Your task to perform on an android device: delete the emails in spam in the gmail app Image 0: 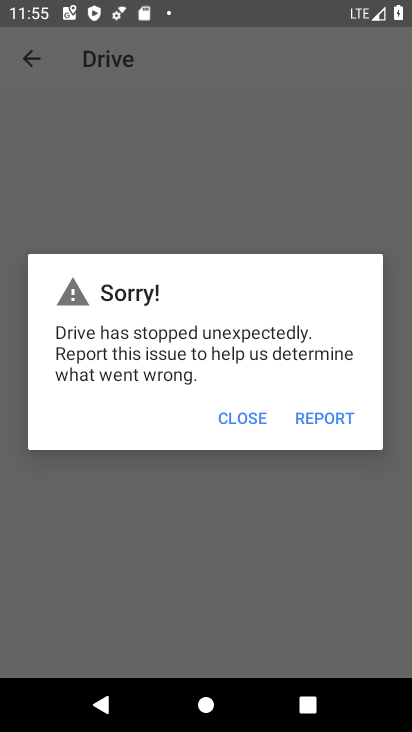
Step 0: press home button
Your task to perform on an android device: delete the emails in spam in the gmail app Image 1: 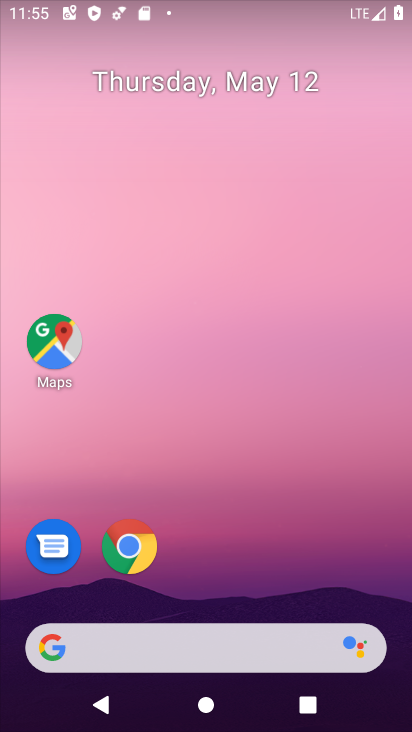
Step 1: drag from (257, 569) to (263, 109)
Your task to perform on an android device: delete the emails in spam in the gmail app Image 2: 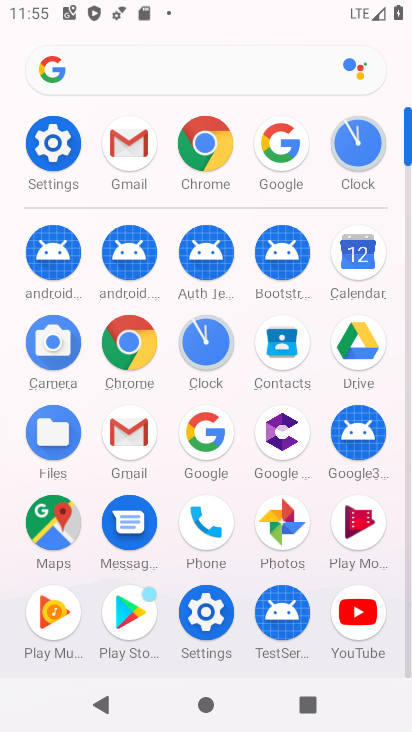
Step 2: click (129, 134)
Your task to perform on an android device: delete the emails in spam in the gmail app Image 3: 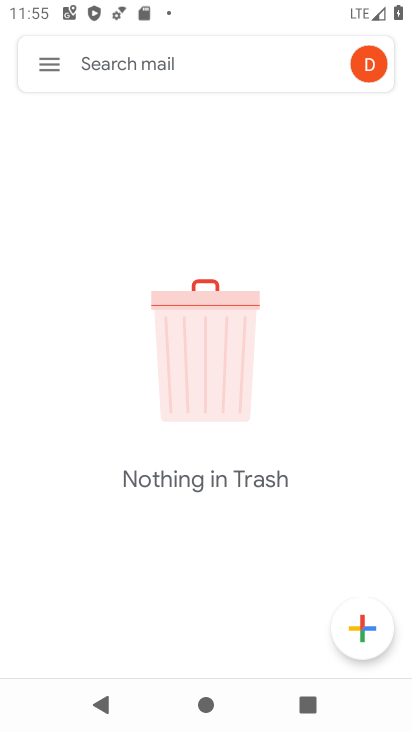
Step 3: click (33, 48)
Your task to perform on an android device: delete the emails in spam in the gmail app Image 4: 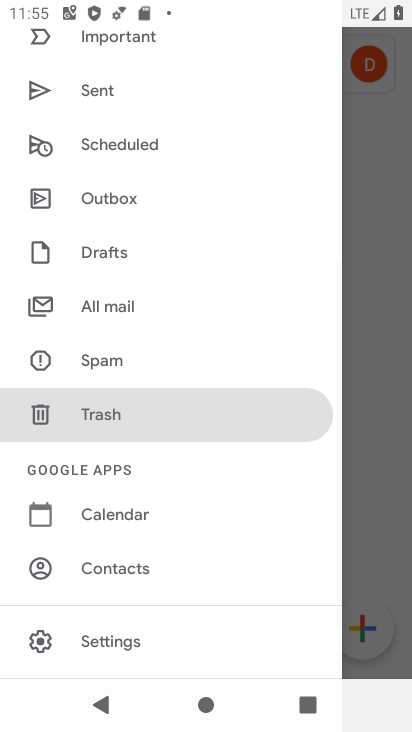
Step 4: click (115, 351)
Your task to perform on an android device: delete the emails in spam in the gmail app Image 5: 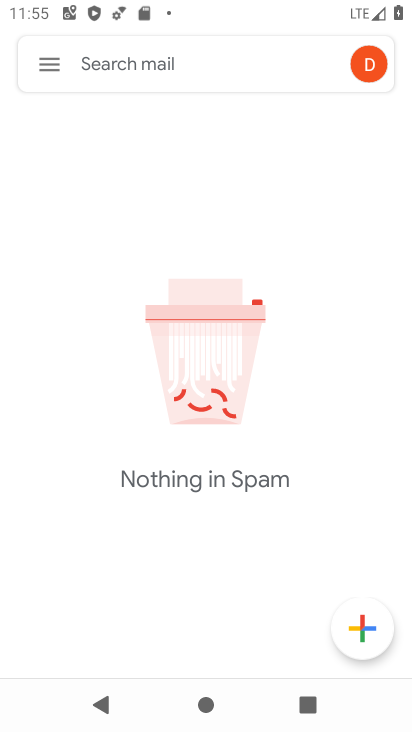
Step 5: task complete